Your task to perform on an android device: Open calendar and show me the second week of next month Image 0: 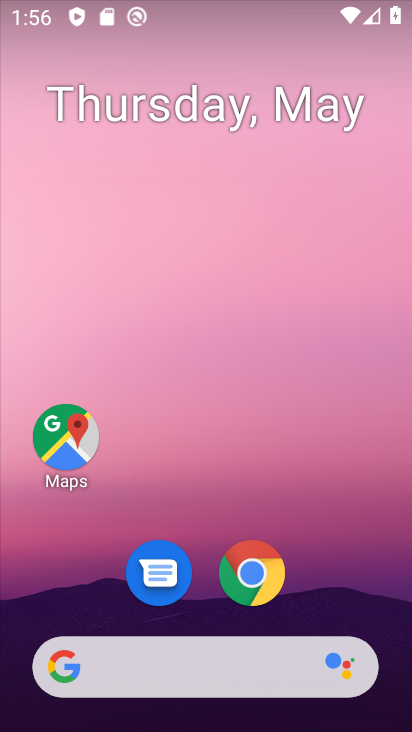
Step 0: drag from (382, 604) to (321, 230)
Your task to perform on an android device: Open calendar and show me the second week of next month Image 1: 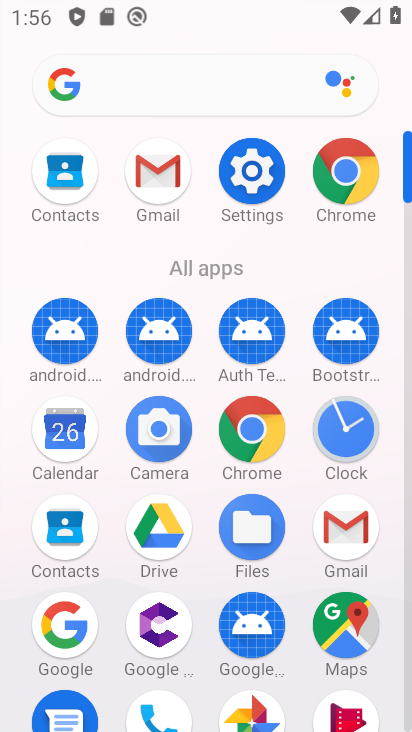
Step 1: click (72, 414)
Your task to perform on an android device: Open calendar and show me the second week of next month Image 2: 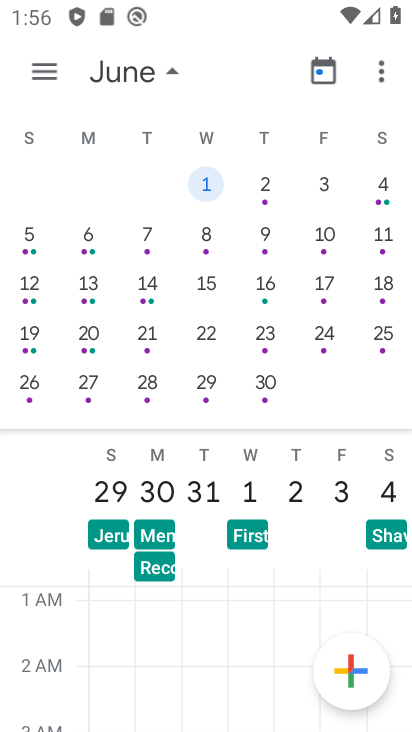
Step 2: click (196, 233)
Your task to perform on an android device: Open calendar and show me the second week of next month Image 3: 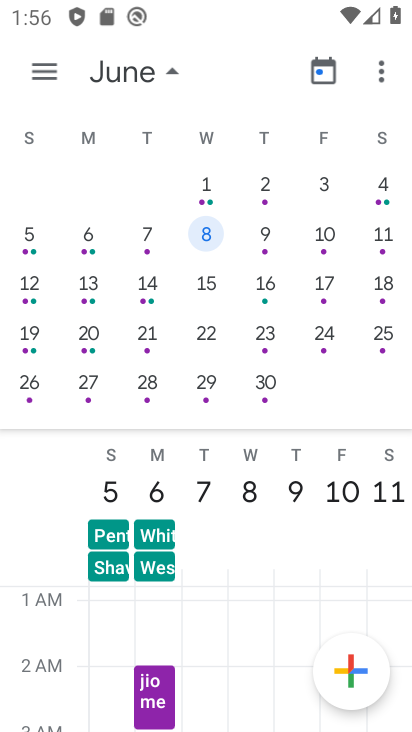
Step 3: task complete